Your task to perform on an android device: Add "logitech g502" to the cart on bestbuy Image 0: 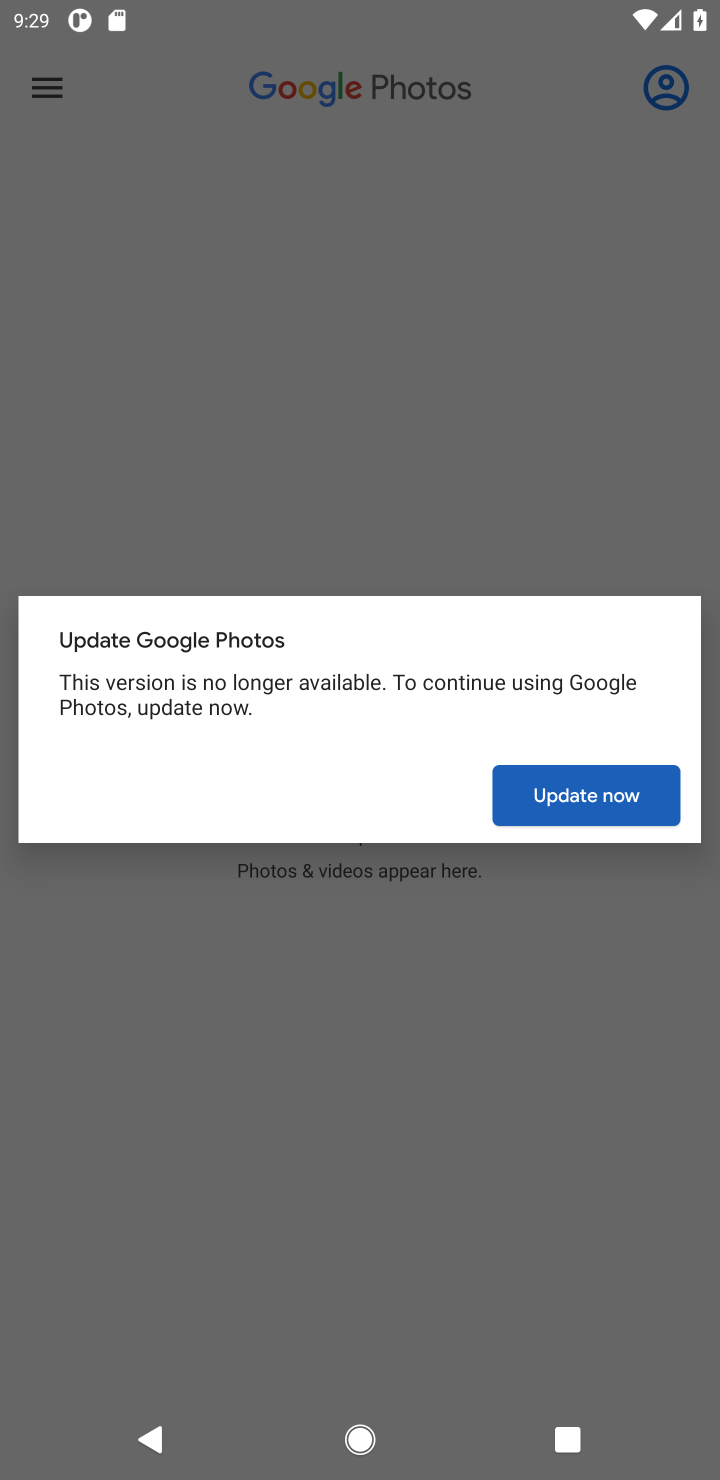
Step 0: press home button
Your task to perform on an android device: Add "logitech g502" to the cart on bestbuy Image 1: 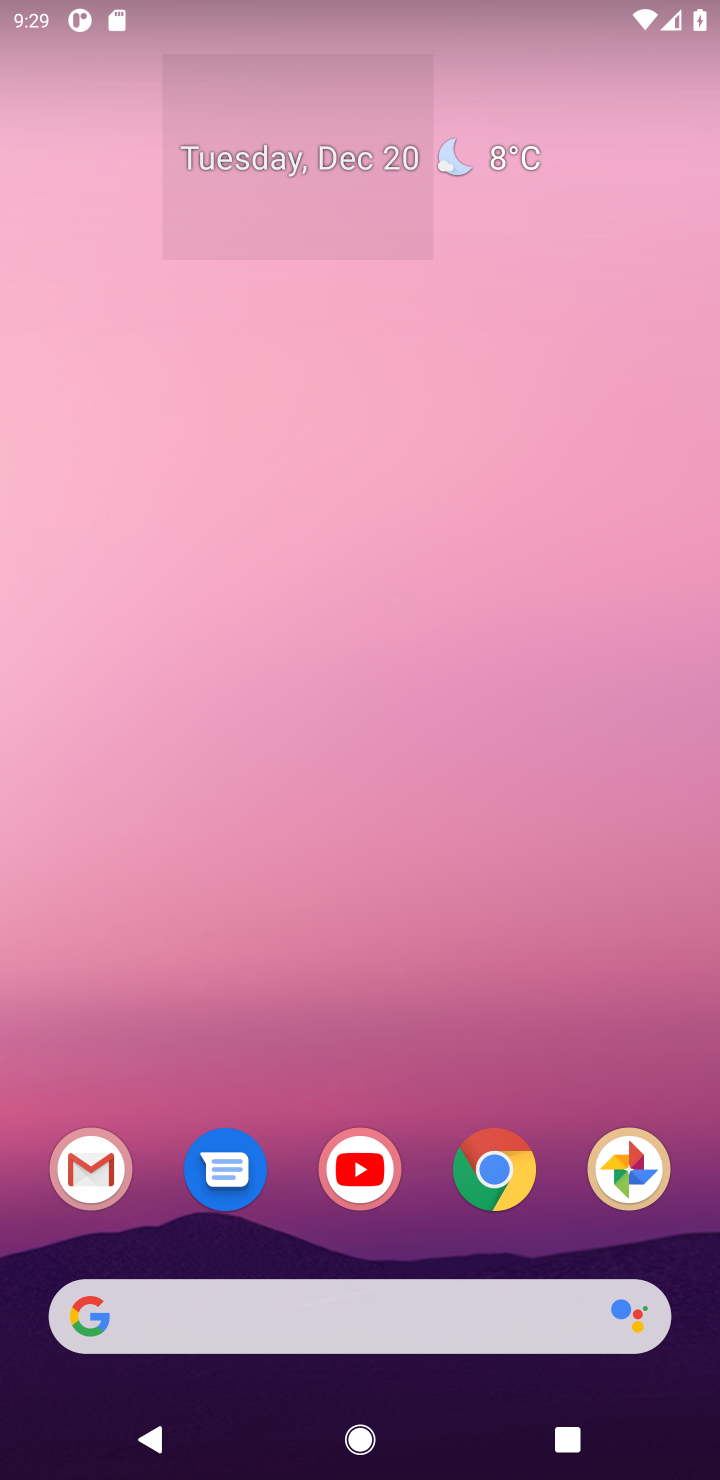
Step 1: click (482, 1140)
Your task to perform on an android device: Add "logitech g502" to the cart on bestbuy Image 2: 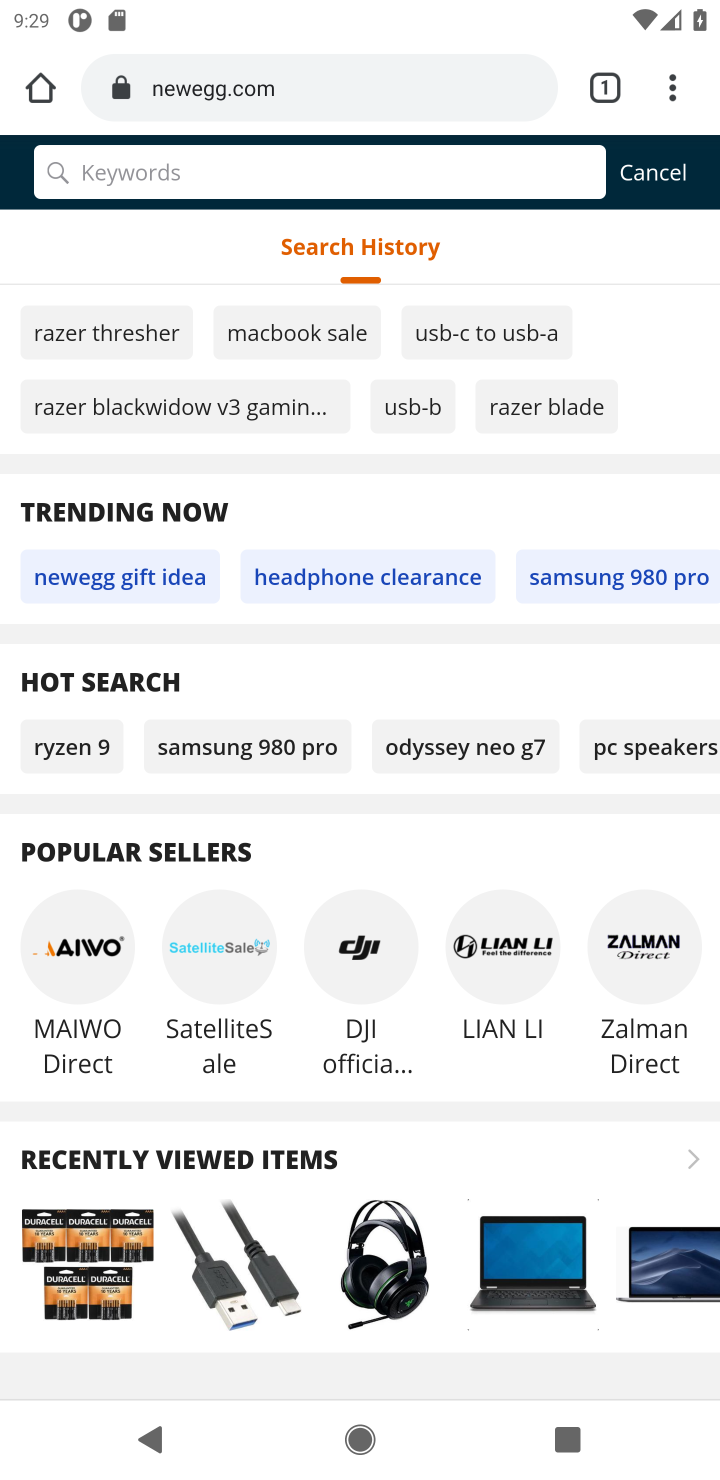
Step 2: click (293, 78)
Your task to perform on an android device: Add "logitech g502" to the cart on bestbuy Image 3: 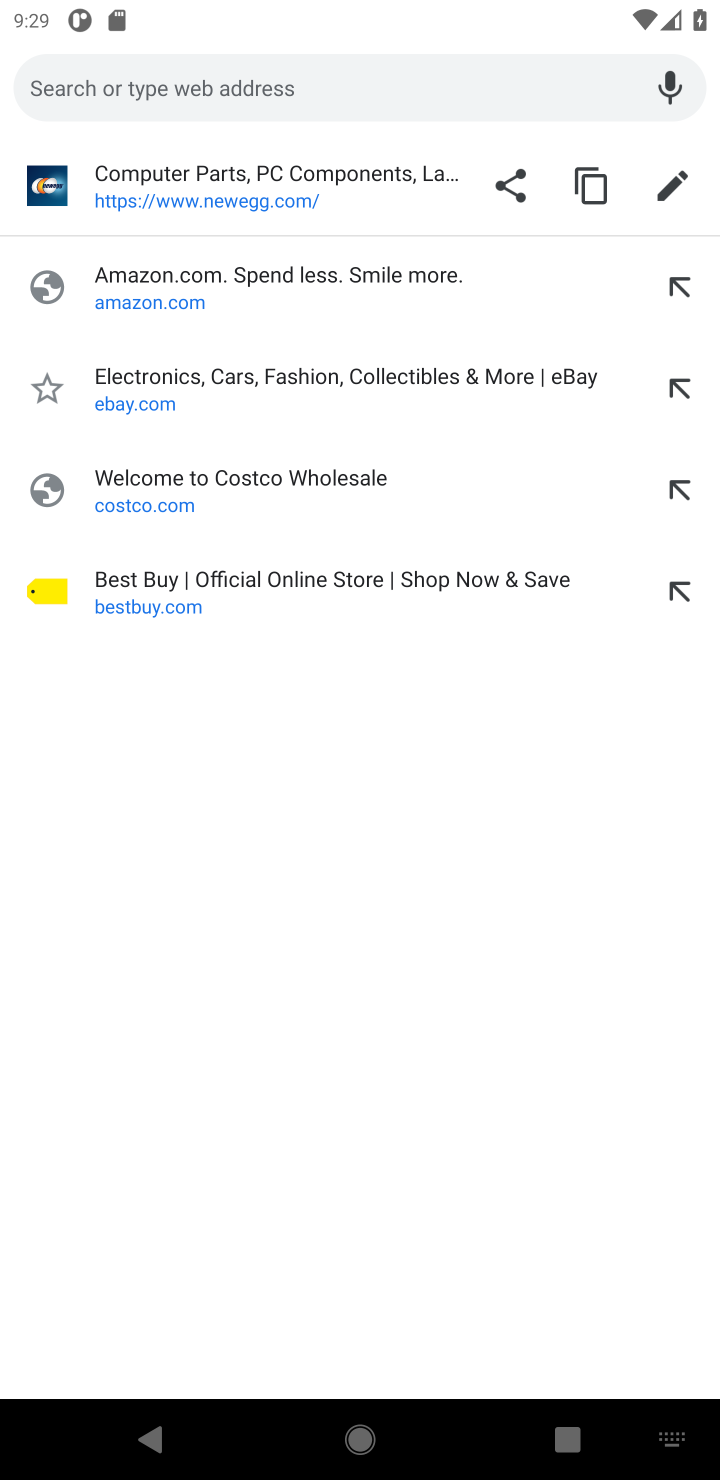
Step 3: type "bestbuy"
Your task to perform on an android device: Add "logitech g502" to the cart on bestbuy Image 4: 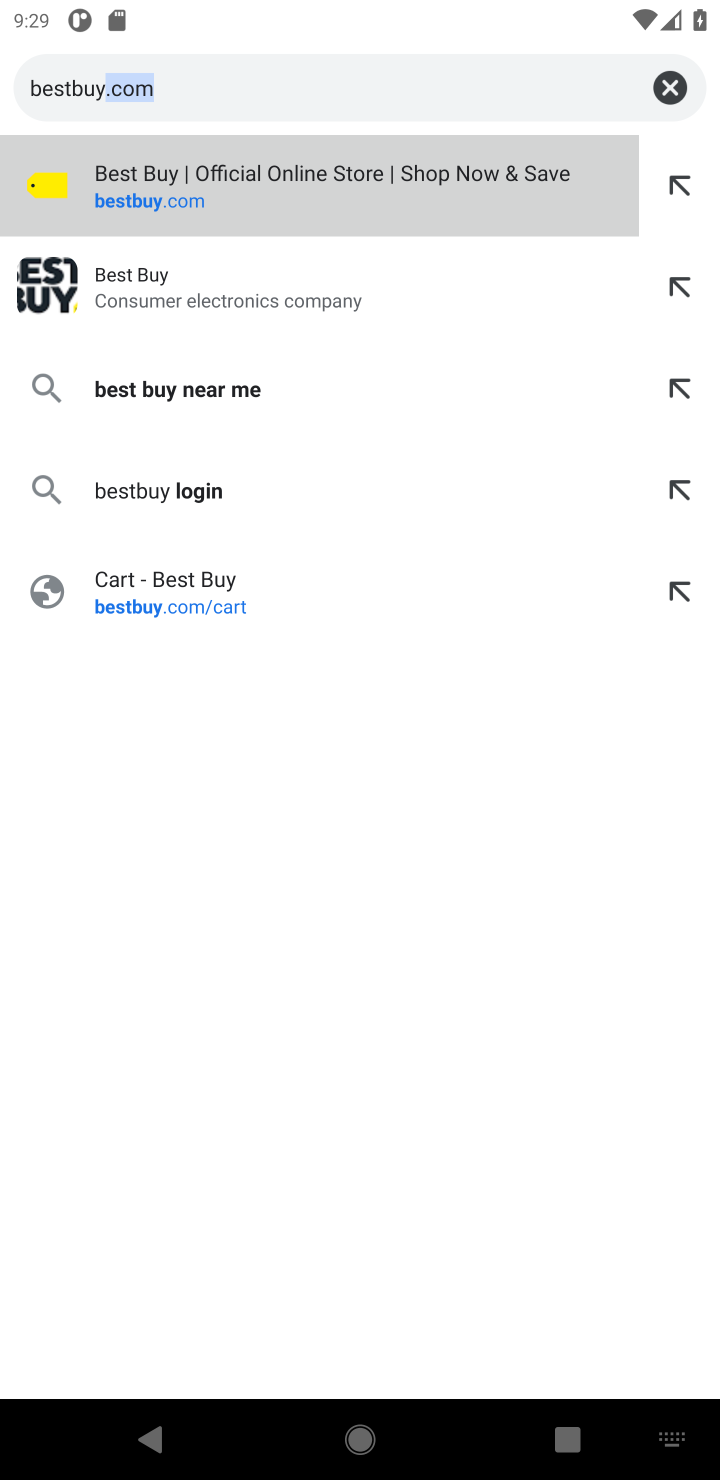
Step 4: click (186, 196)
Your task to perform on an android device: Add "logitech g502" to the cart on bestbuy Image 5: 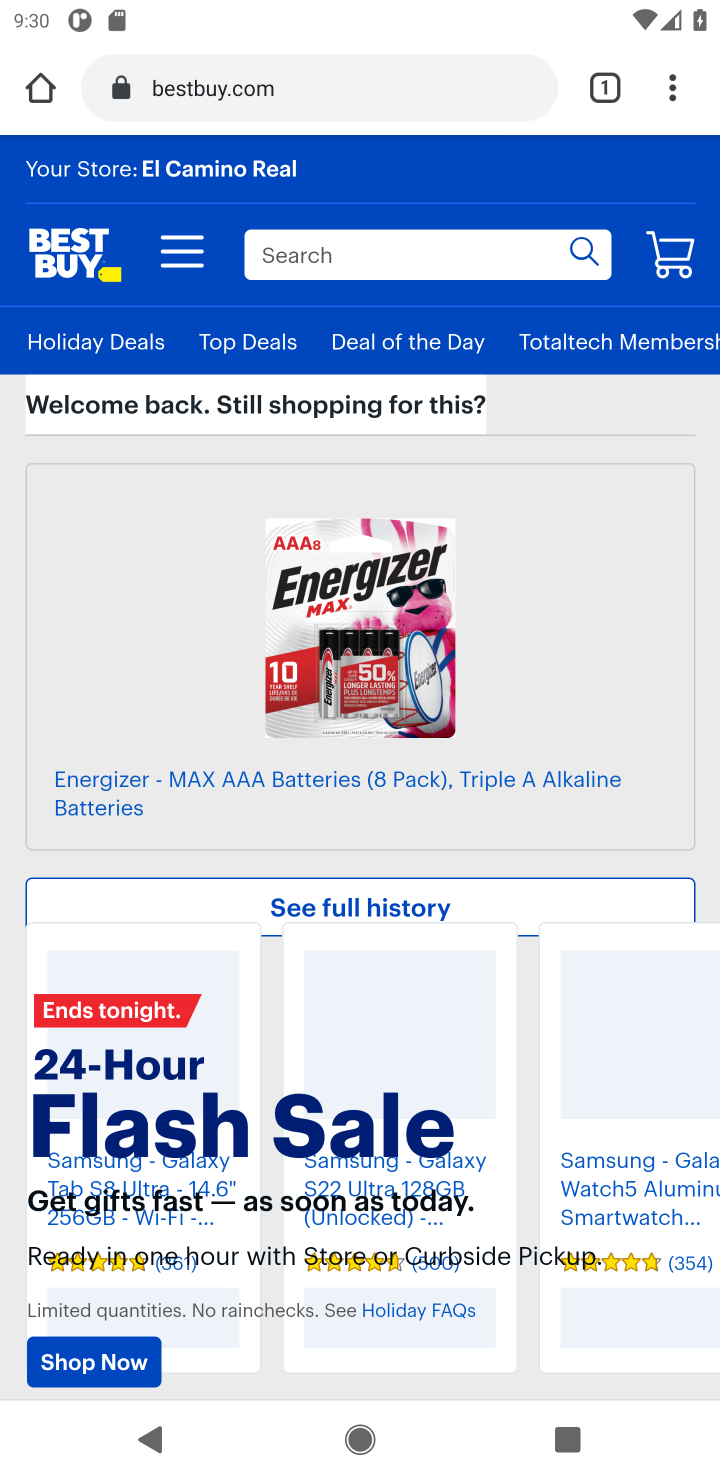
Step 5: click (369, 246)
Your task to perform on an android device: Add "logitech g502" to the cart on bestbuy Image 6: 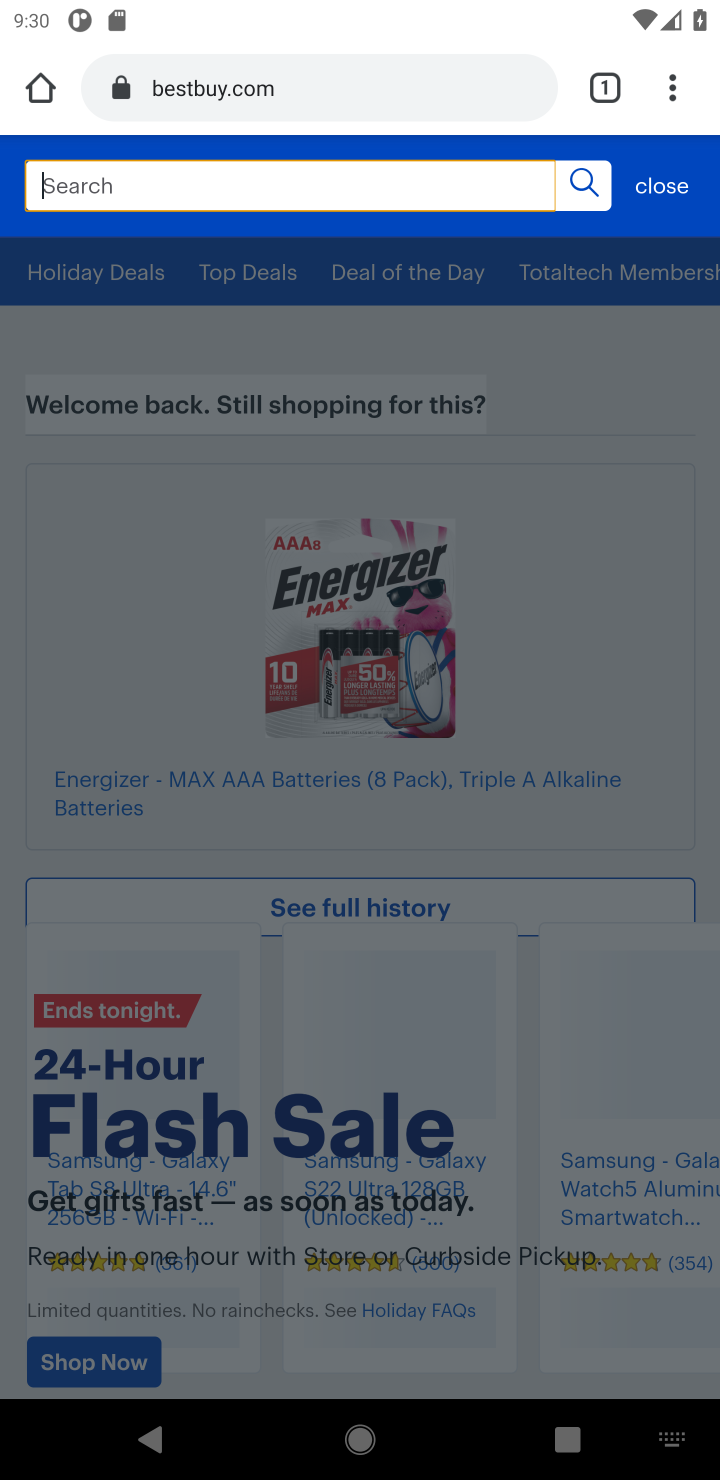
Step 6: type "logitec g 502"
Your task to perform on an android device: Add "logitech g502" to the cart on bestbuy Image 7: 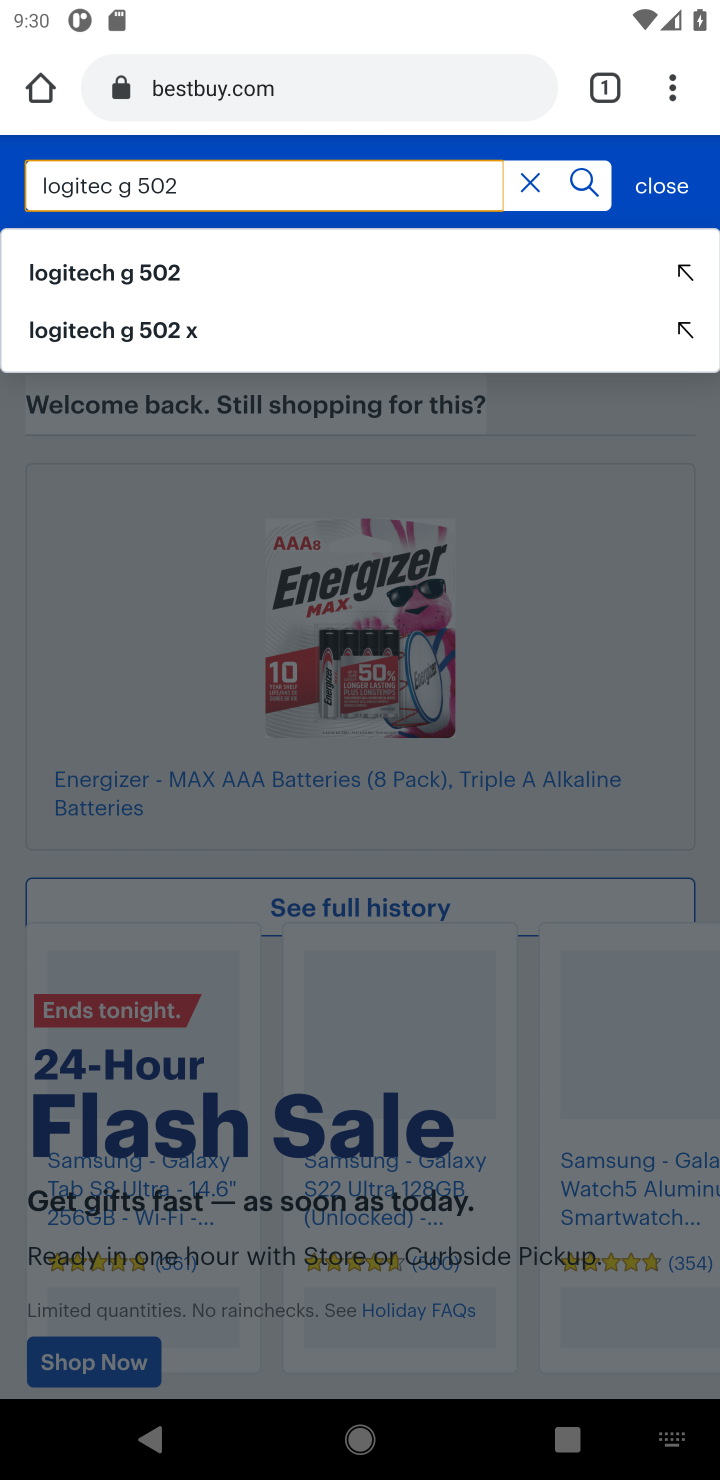
Step 7: click (602, 202)
Your task to perform on an android device: Add "logitech g502" to the cart on bestbuy Image 8: 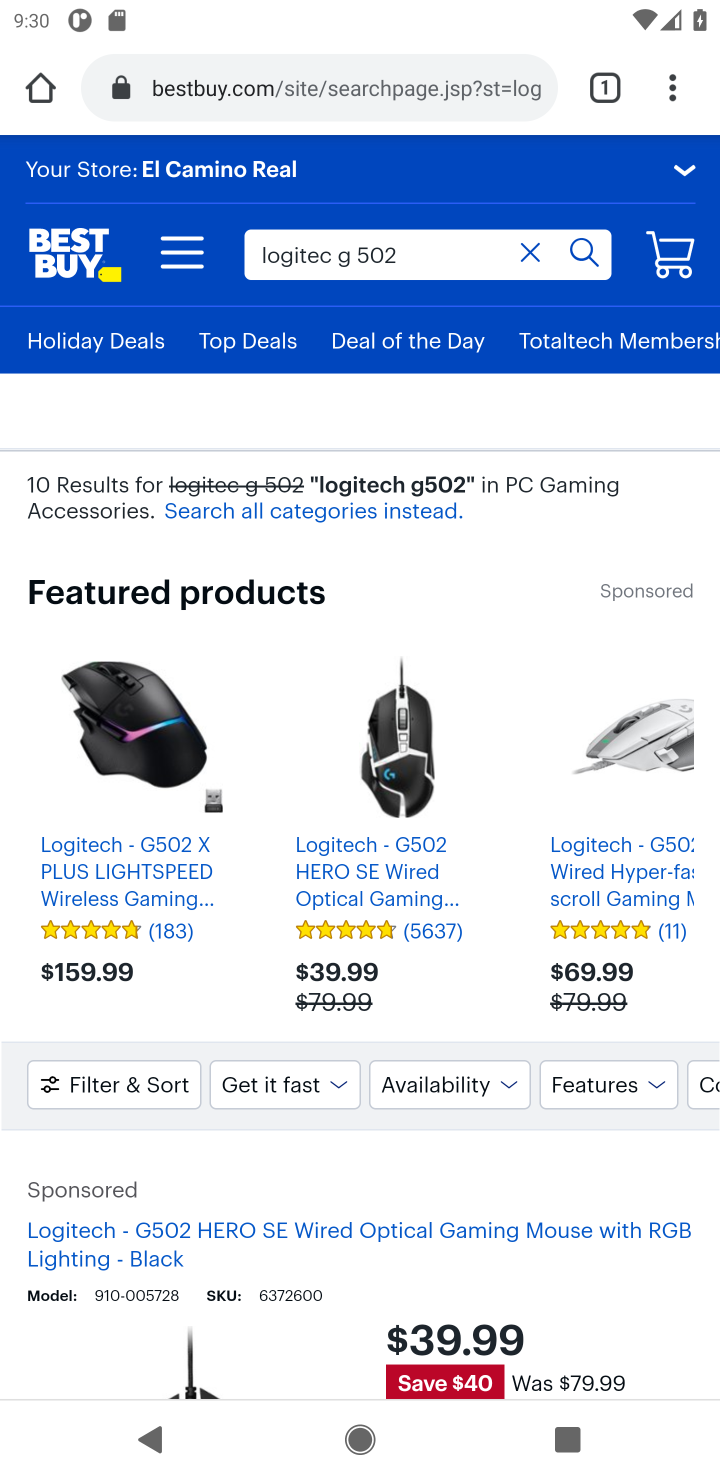
Step 8: click (125, 785)
Your task to perform on an android device: Add "logitech g502" to the cart on bestbuy Image 9: 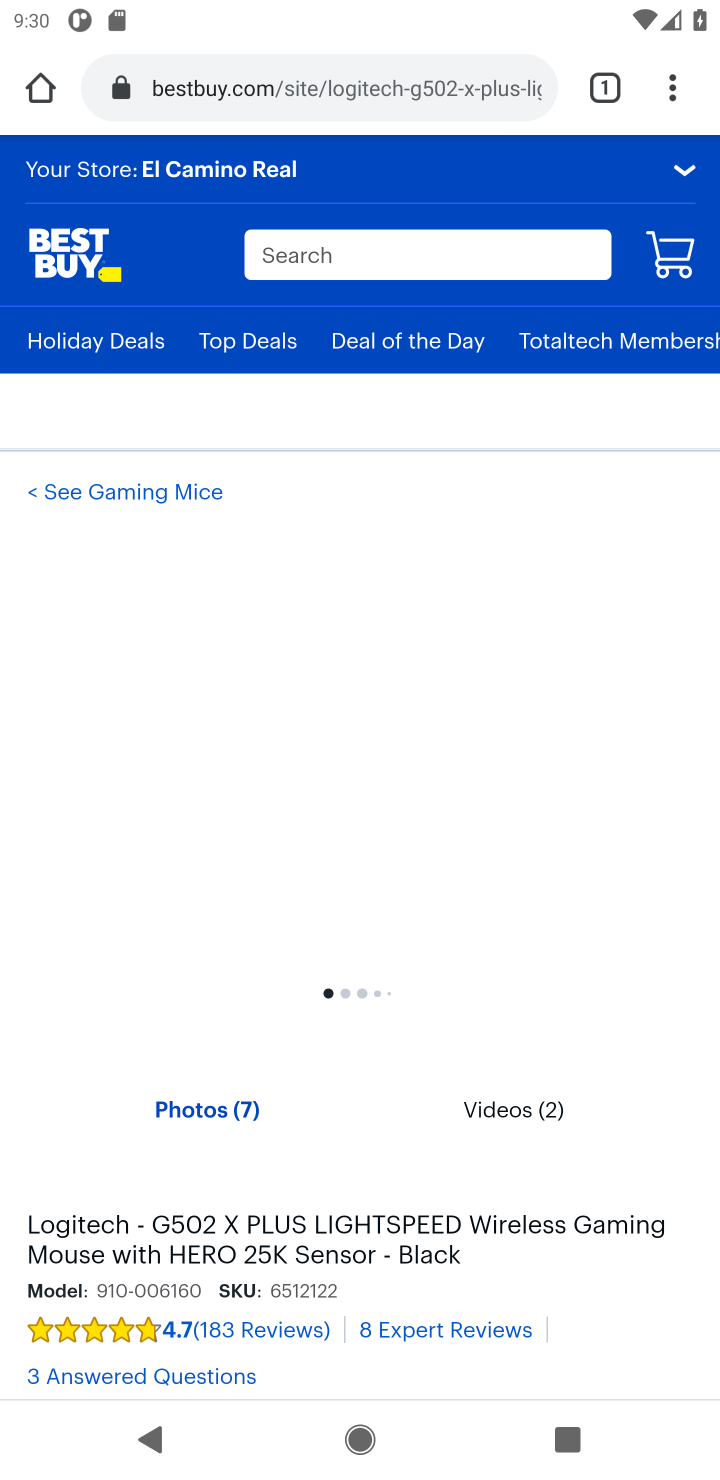
Step 9: drag from (460, 1229) to (439, 549)
Your task to perform on an android device: Add "logitech g502" to the cart on bestbuy Image 10: 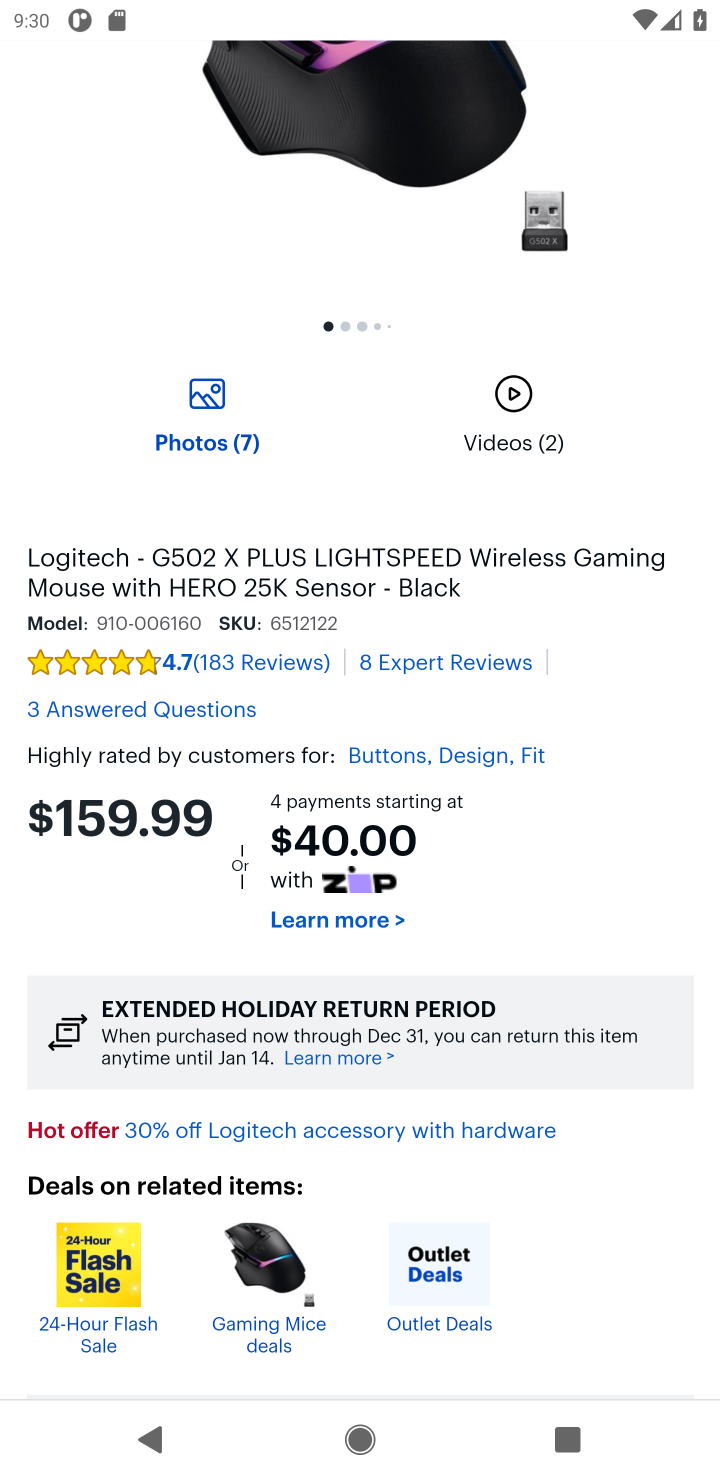
Step 10: drag from (580, 1341) to (517, 420)
Your task to perform on an android device: Add "logitech g502" to the cart on bestbuy Image 11: 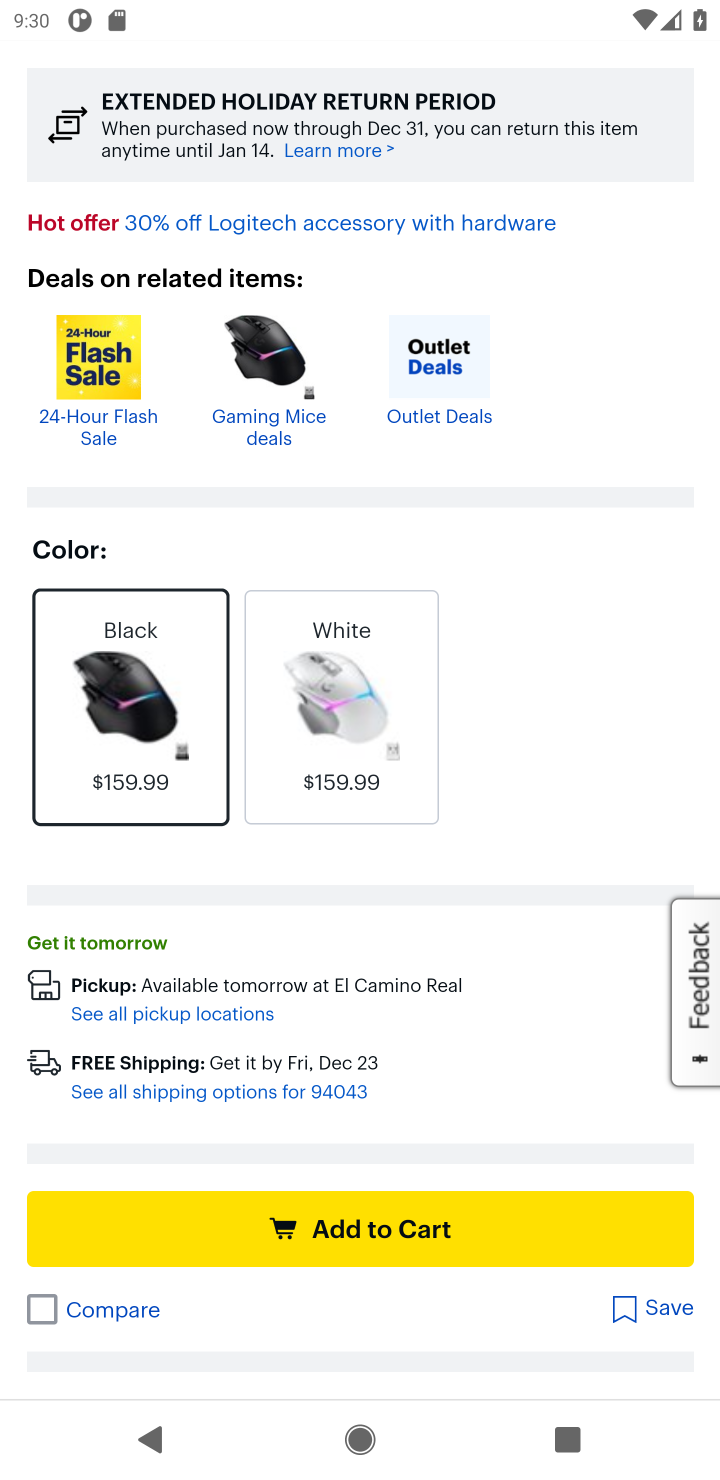
Step 11: click (471, 1211)
Your task to perform on an android device: Add "logitech g502" to the cart on bestbuy Image 12: 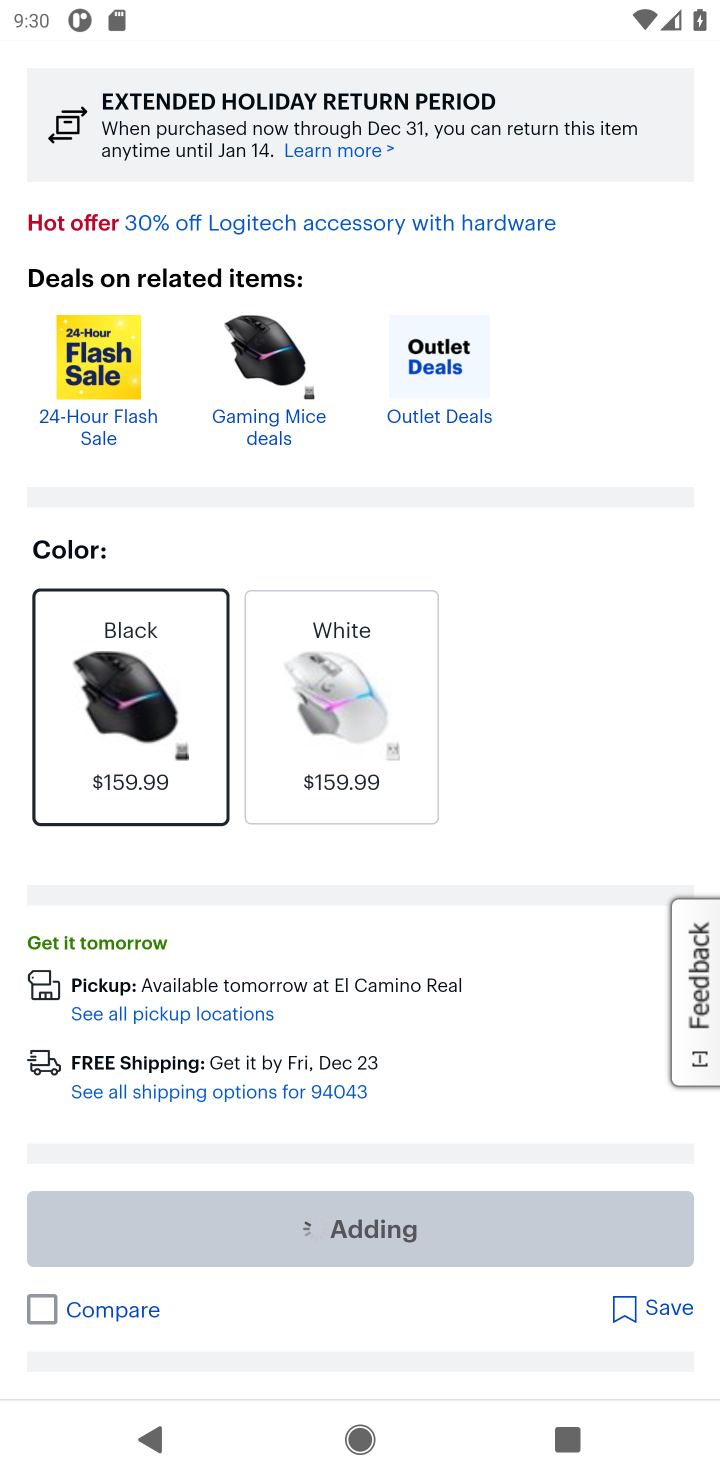
Step 12: task complete